Your task to perform on an android device: open sync settings in chrome Image 0: 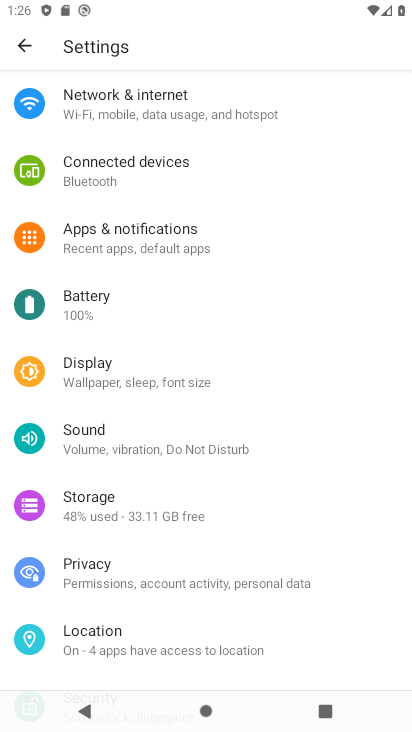
Step 0: press home button
Your task to perform on an android device: open sync settings in chrome Image 1: 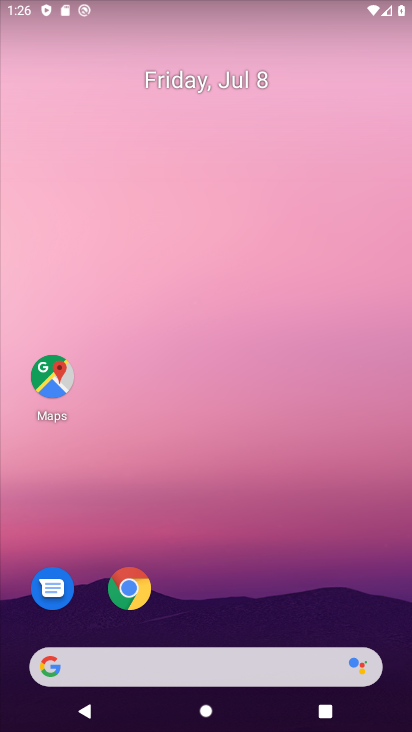
Step 1: click (136, 583)
Your task to perform on an android device: open sync settings in chrome Image 2: 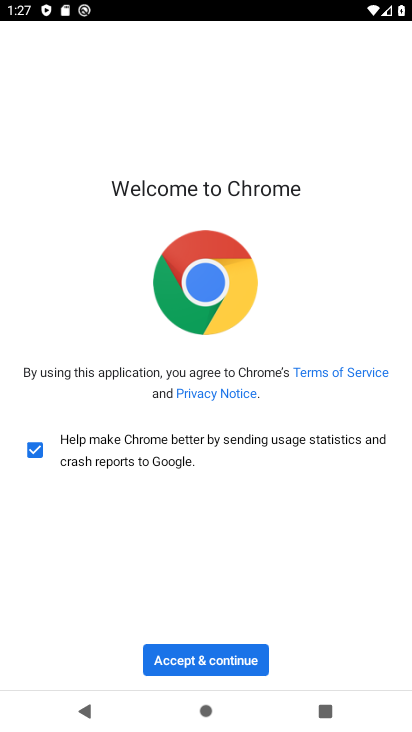
Step 2: click (221, 658)
Your task to perform on an android device: open sync settings in chrome Image 3: 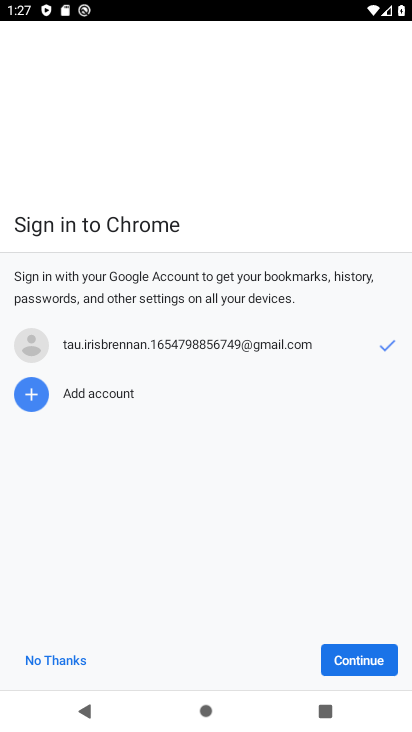
Step 3: click (352, 666)
Your task to perform on an android device: open sync settings in chrome Image 4: 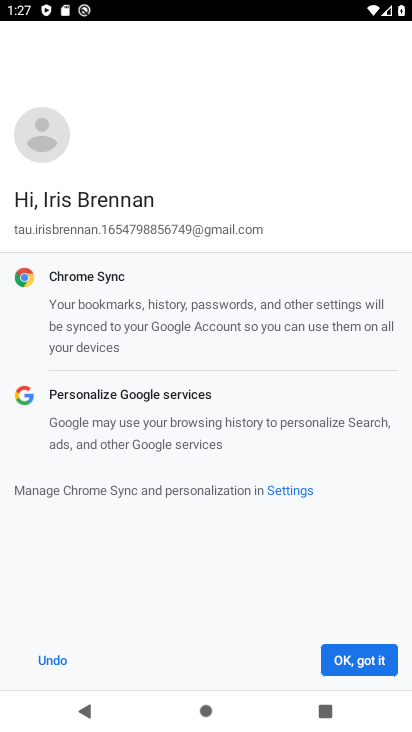
Step 4: click (352, 666)
Your task to perform on an android device: open sync settings in chrome Image 5: 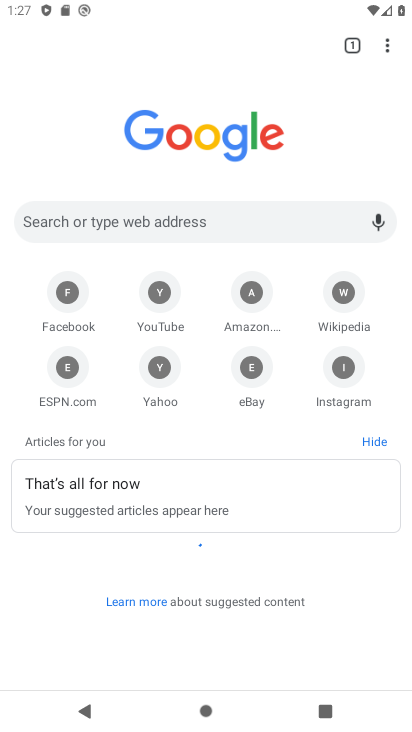
Step 5: drag from (384, 43) to (224, 382)
Your task to perform on an android device: open sync settings in chrome Image 6: 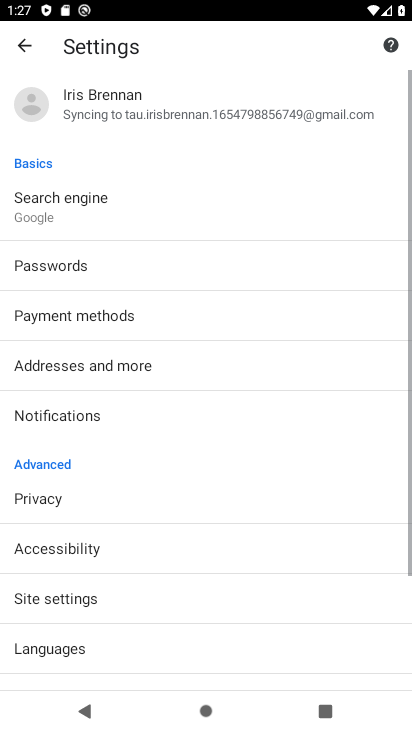
Step 6: click (156, 116)
Your task to perform on an android device: open sync settings in chrome Image 7: 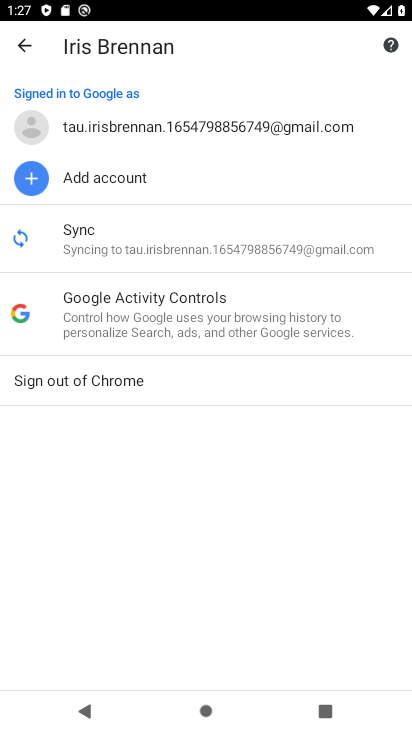
Step 7: click (166, 242)
Your task to perform on an android device: open sync settings in chrome Image 8: 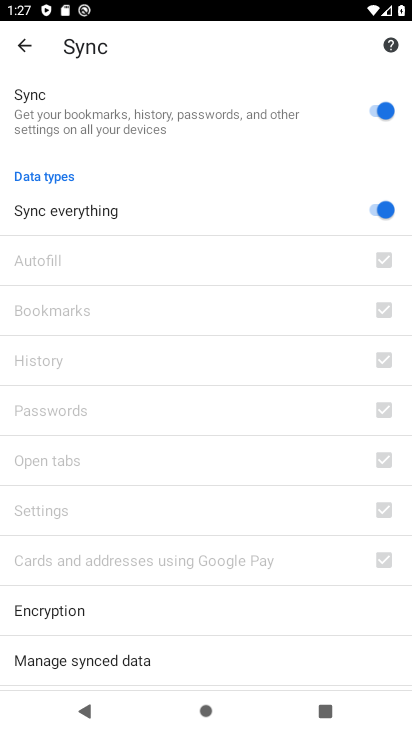
Step 8: task complete